Your task to perform on an android device: delete browsing data in the chrome app Image 0: 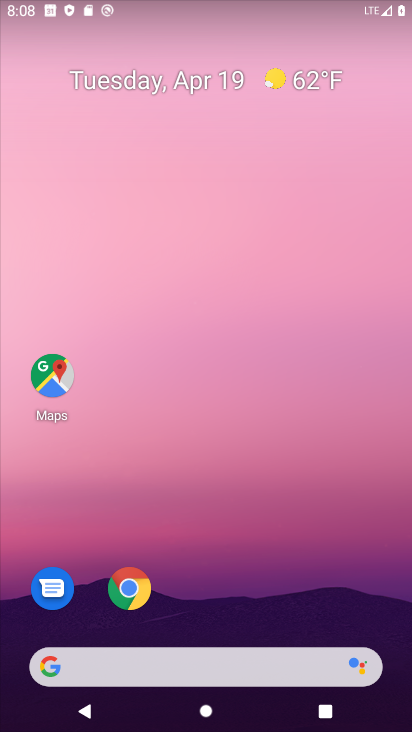
Step 0: click (133, 592)
Your task to perform on an android device: delete browsing data in the chrome app Image 1: 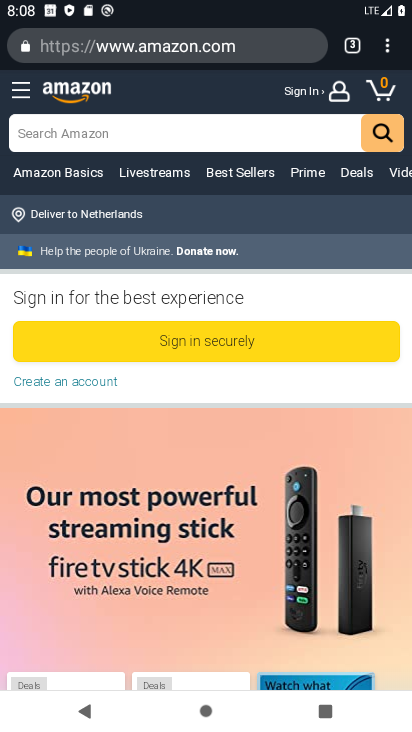
Step 1: click (391, 46)
Your task to perform on an android device: delete browsing data in the chrome app Image 2: 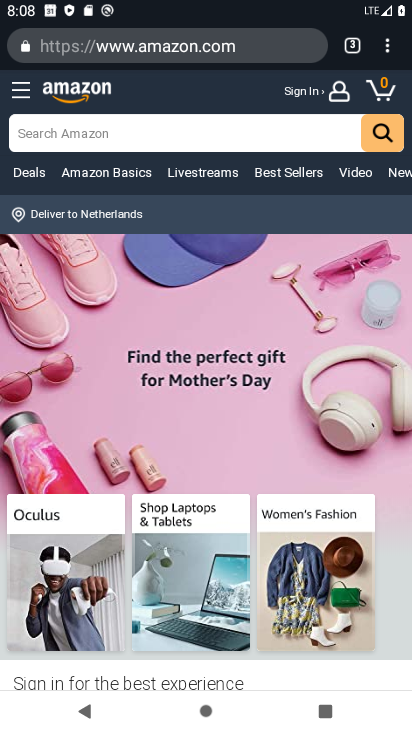
Step 2: click (381, 55)
Your task to perform on an android device: delete browsing data in the chrome app Image 3: 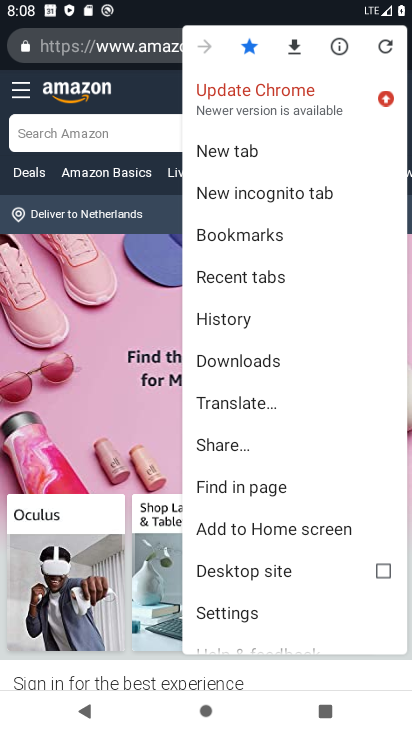
Step 3: click (233, 319)
Your task to perform on an android device: delete browsing data in the chrome app Image 4: 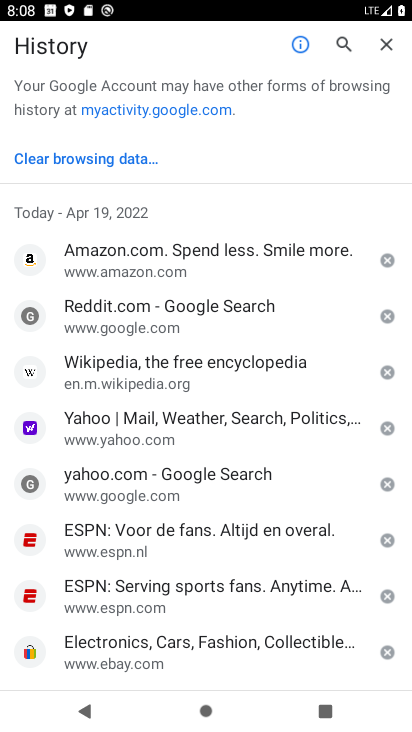
Step 4: click (90, 155)
Your task to perform on an android device: delete browsing data in the chrome app Image 5: 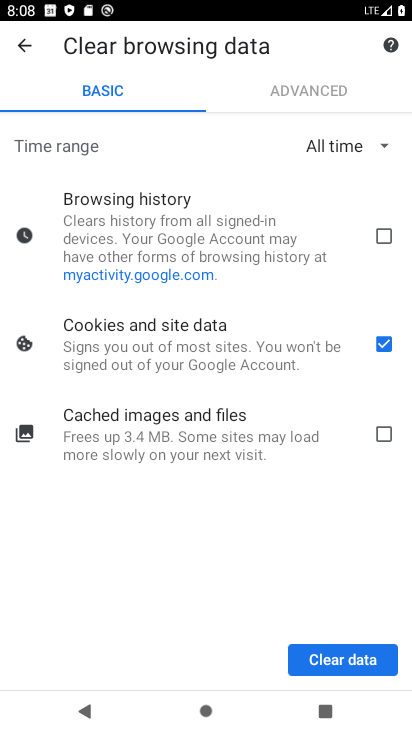
Step 5: click (392, 234)
Your task to perform on an android device: delete browsing data in the chrome app Image 6: 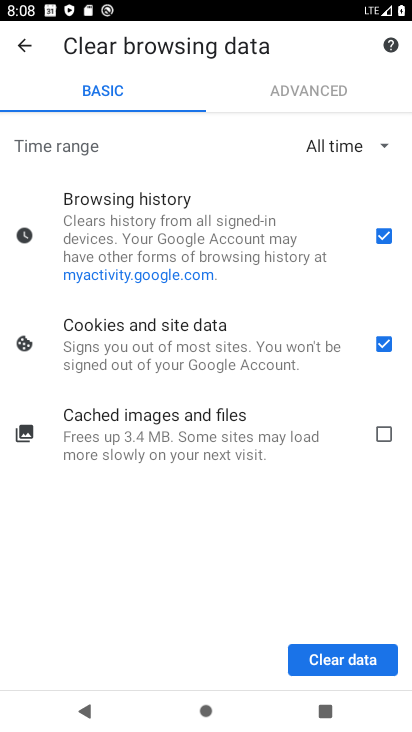
Step 6: click (383, 346)
Your task to perform on an android device: delete browsing data in the chrome app Image 7: 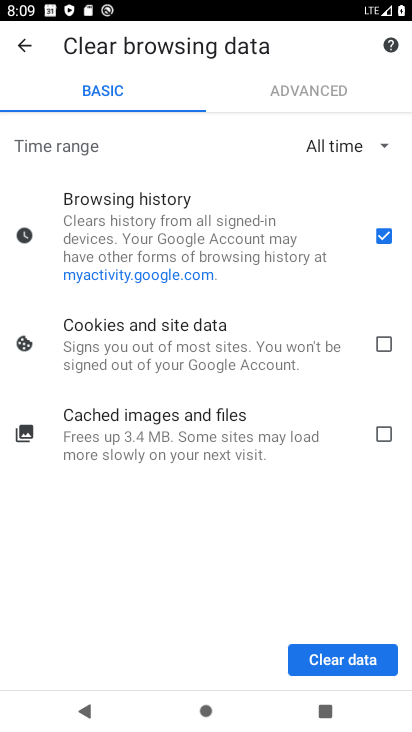
Step 7: click (328, 661)
Your task to perform on an android device: delete browsing data in the chrome app Image 8: 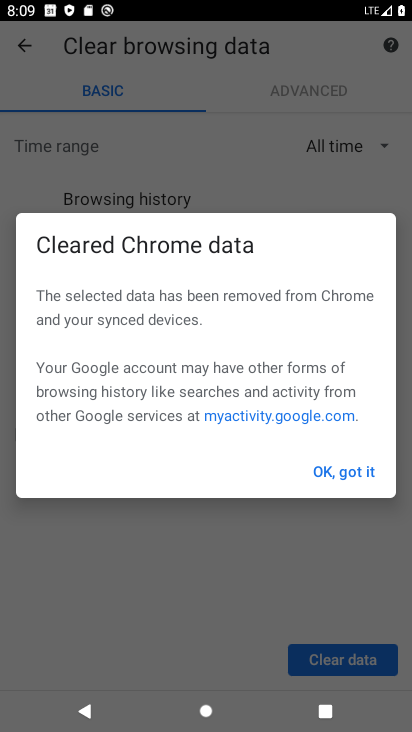
Step 8: click (328, 472)
Your task to perform on an android device: delete browsing data in the chrome app Image 9: 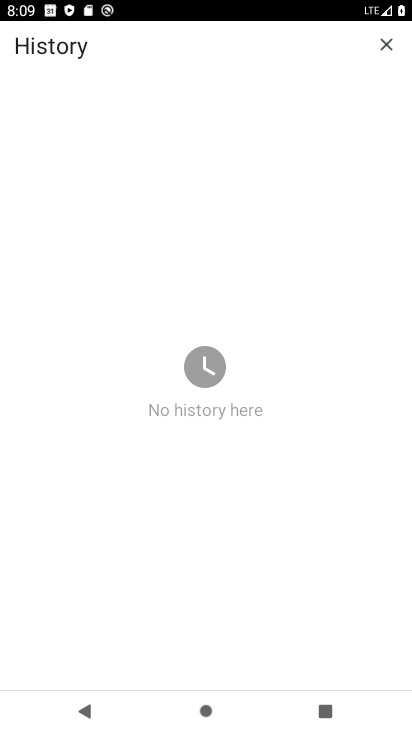
Step 9: task complete